Your task to perform on an android device: What's the news in French Guiana? Image 0: 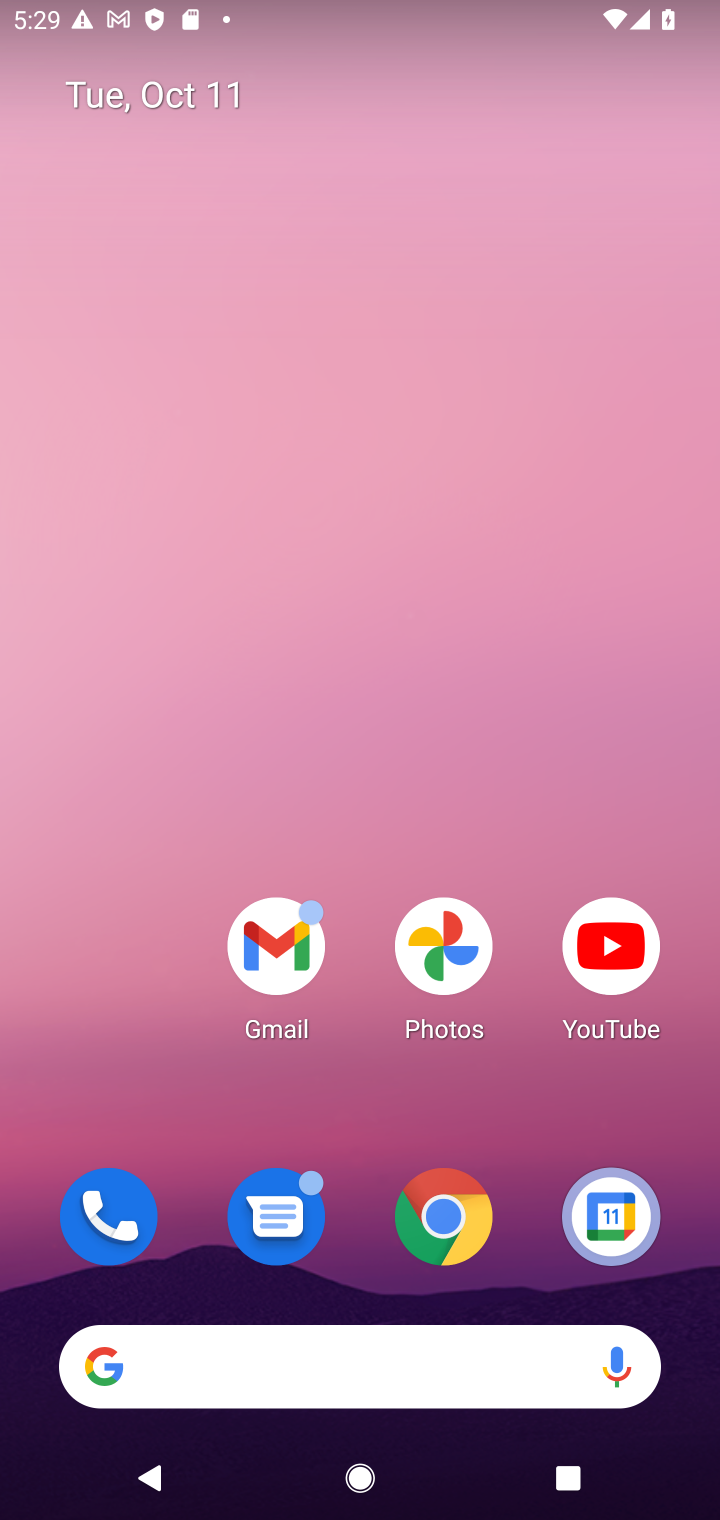
Step 0: click (446, 1222)
Your task to perform on an android device: What's the news in French Guiana? Image 1: 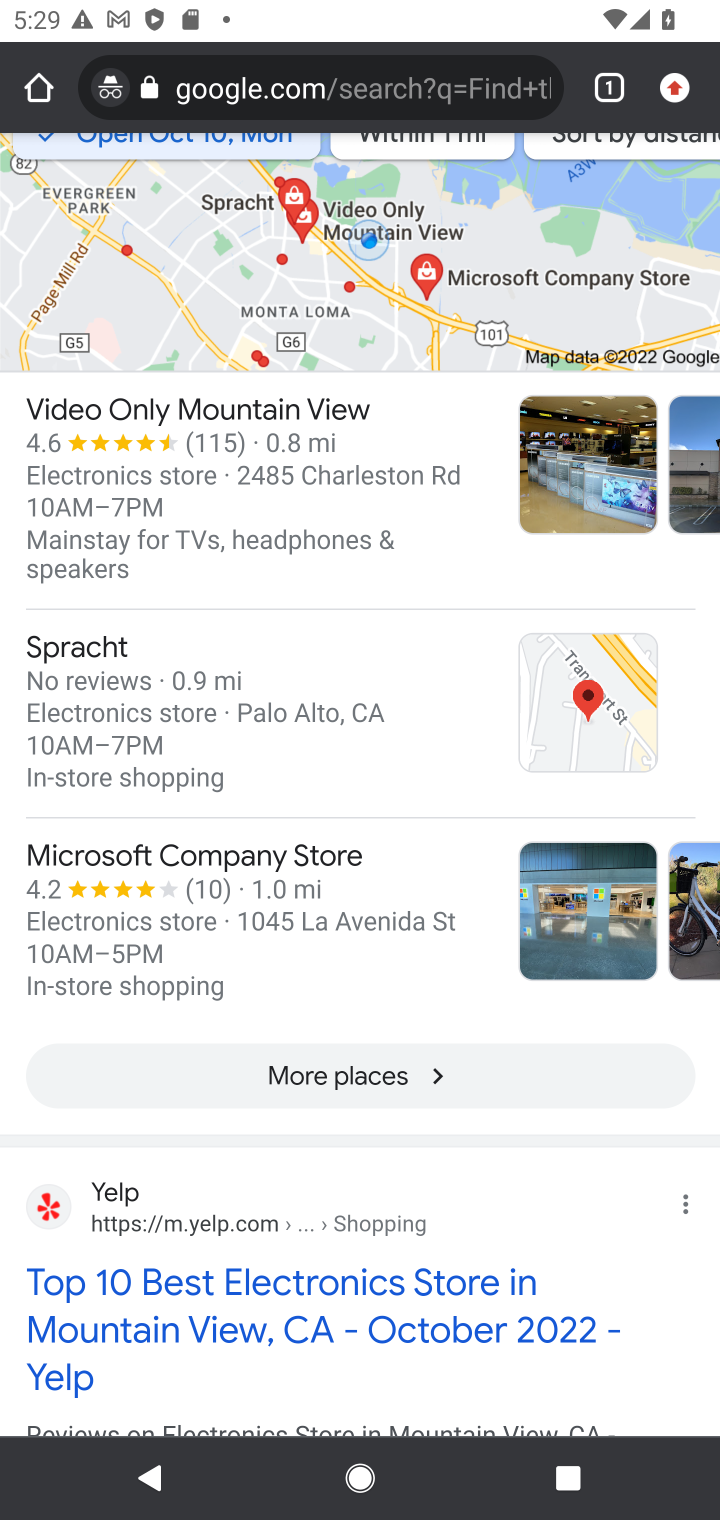
Step 1: click (336, 85)
Your task to perform on an android device: What's the news in French Guiana? Image 2: 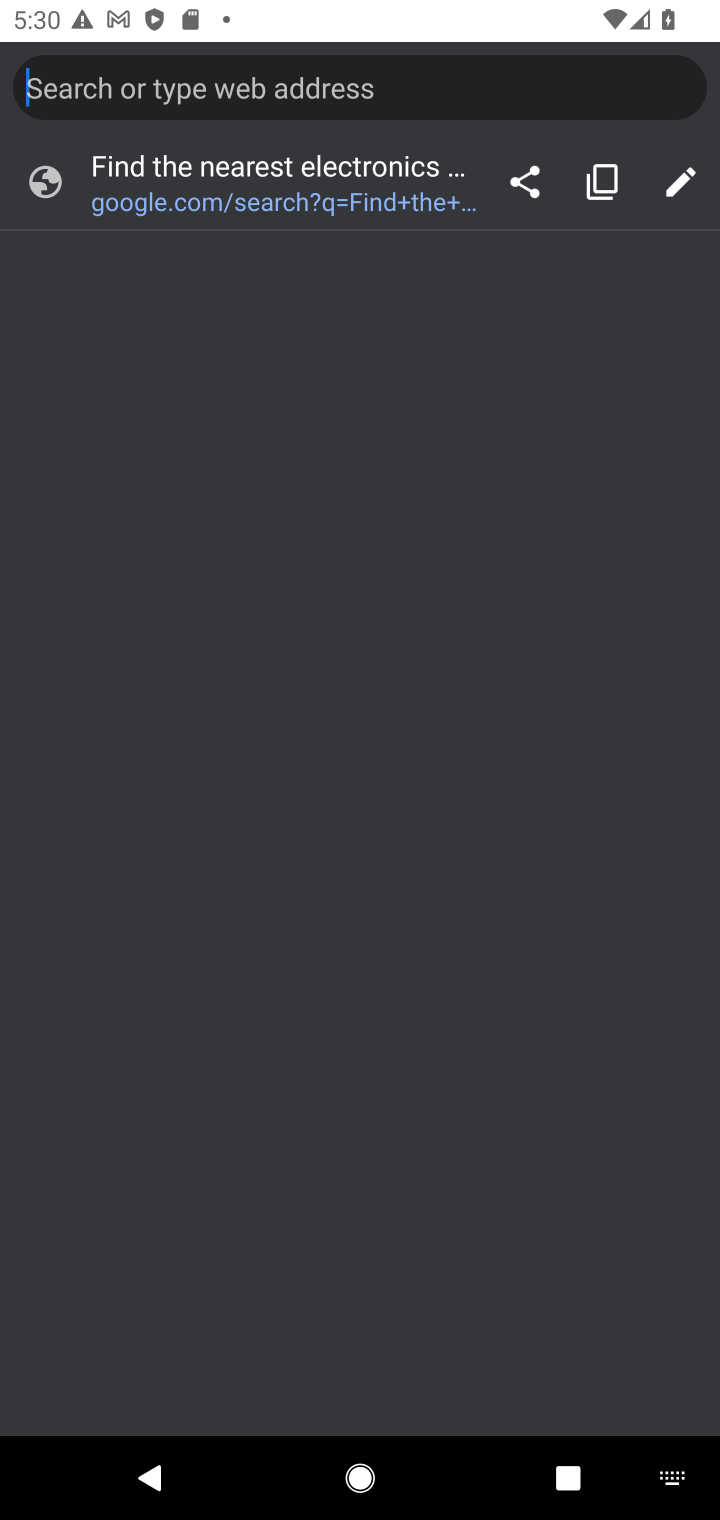
Step 2: type "What's the news in French Guiana?"
Your task to perform on an android device: What's the news in French Guiana? Image 3: 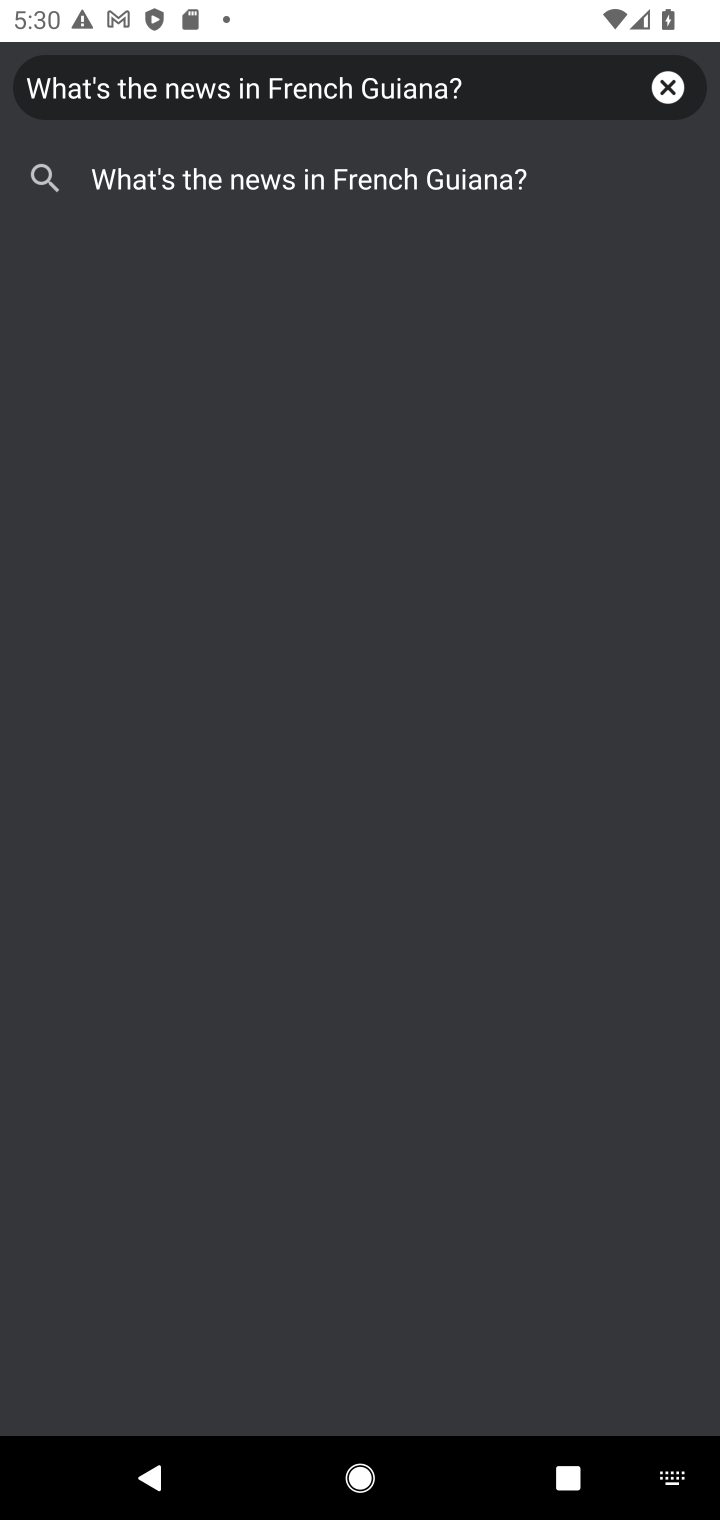
Step 3: click (392, 184)
Your task to perform on an android device: What's the news in French Guiana? Image 4: 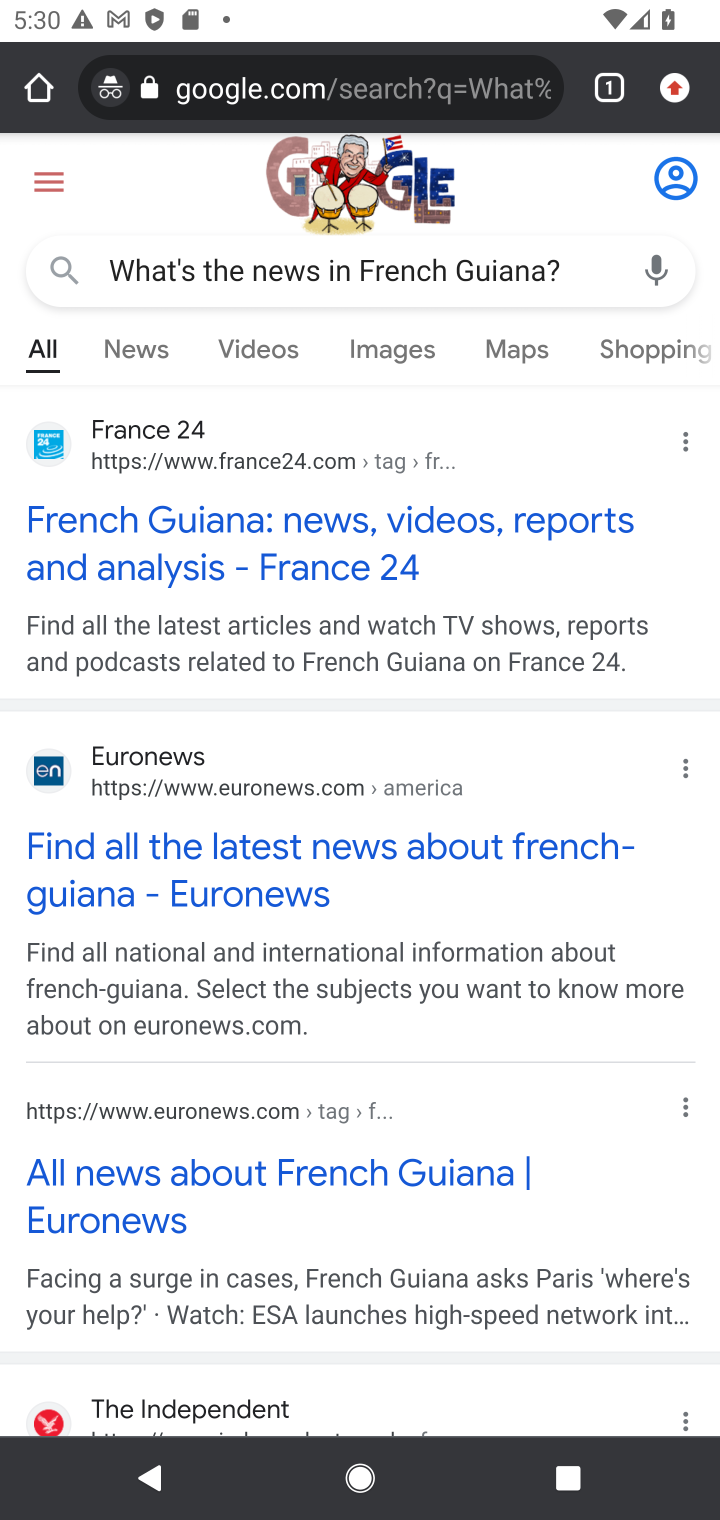
Step 4: click (380, 546)
Your task to perform on an android device: What's the news in French Guiana? Image 5: 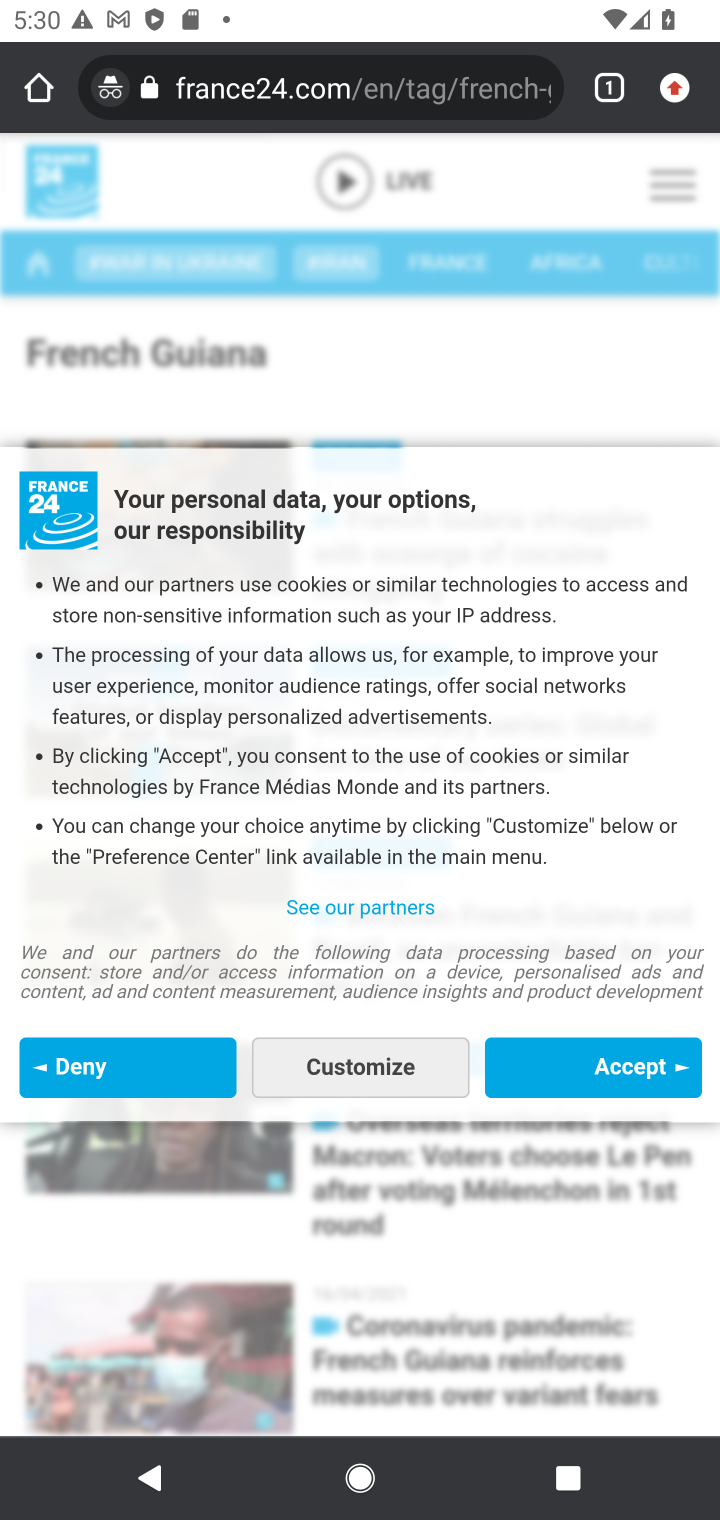
Step 5: click (597, 1063)
Your task to perform on an android device: What's the news in French Guiana? Image 6: 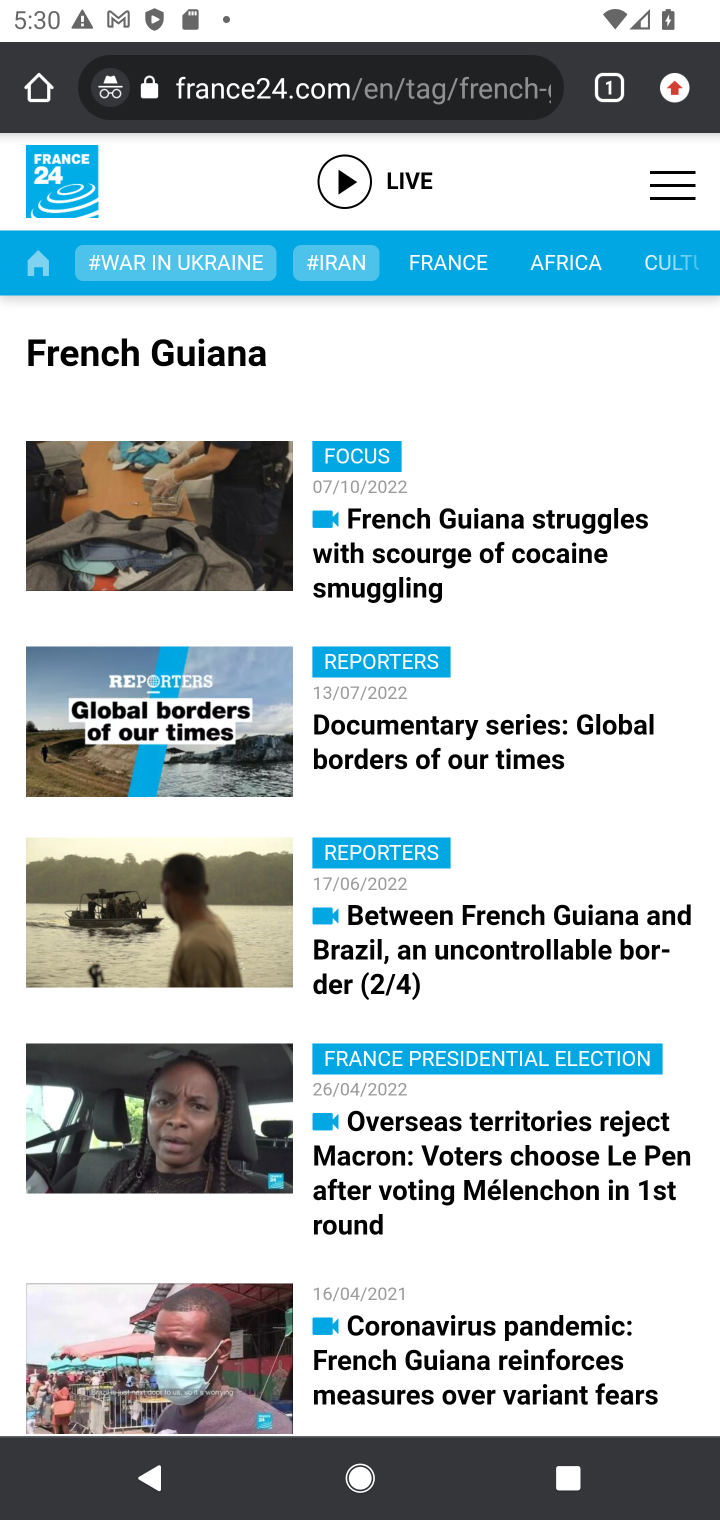
Step 6: task complete